Your task to perform on an android device: turn off location history Image 0: 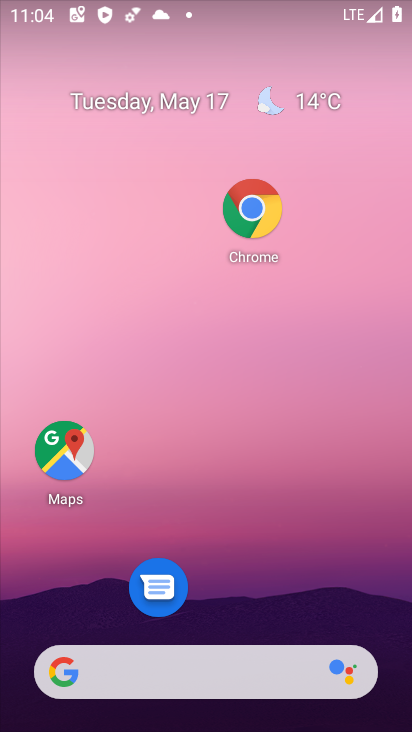
Step 0: drag from (273, 530) to (278, 73)
Your task to perform on an android device: turn off location history Image 1: 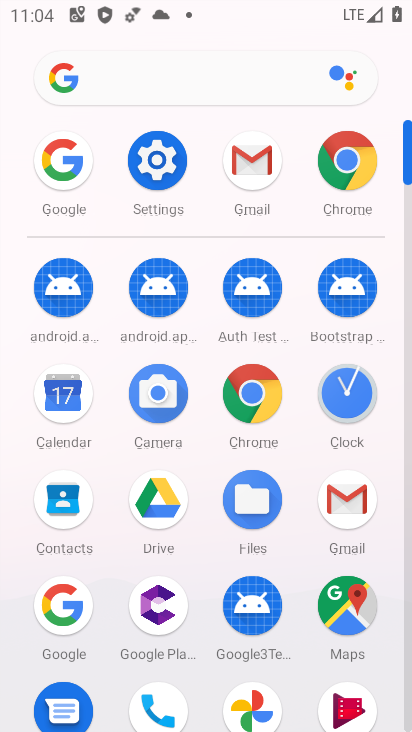
Step 1: click (167, 161)
Your task to perform on an android device: turn off location history Image 2: 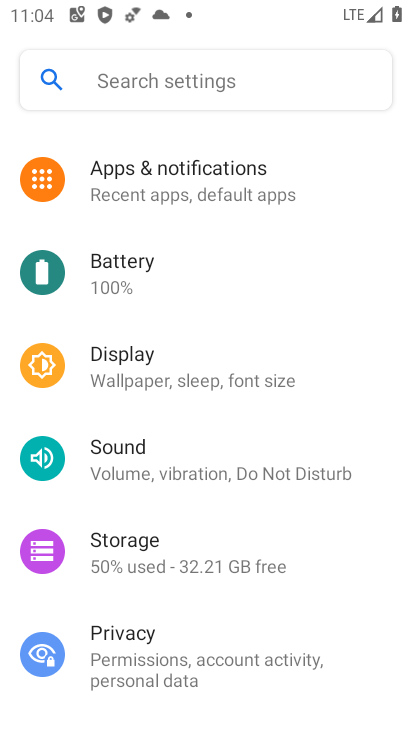
Step 2: drag from (269, 629) to (278, 403)
Your task to perform on an android device: turn off location history Image 3: 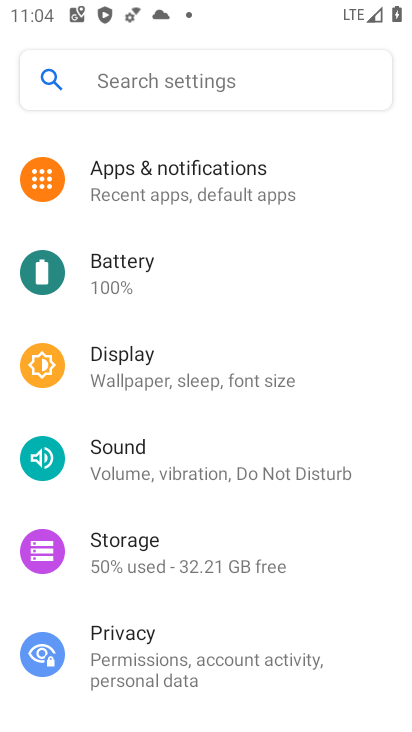
Step 3: drag from (292, 623) to (303, 350)
Your task to perform on an android device: turn off location history Image 4: 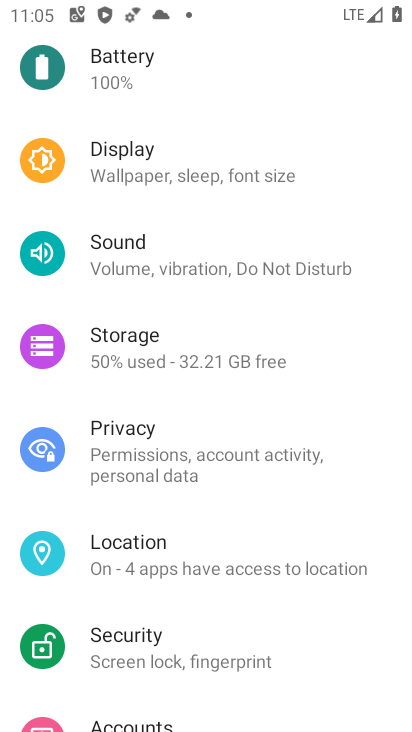
Step 4: click (228, 553)
Your task to perform on an android device: turn off location history Image 5: 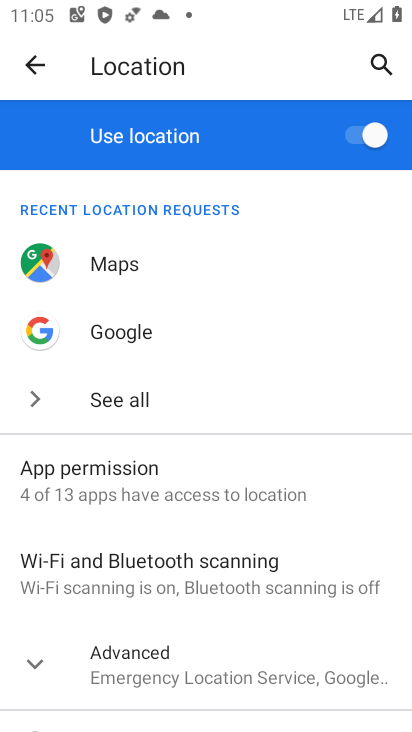
Step 5: drag from (271, 609) to (276, 360)
Your task to perform on an android device: turn off location history Image 6: 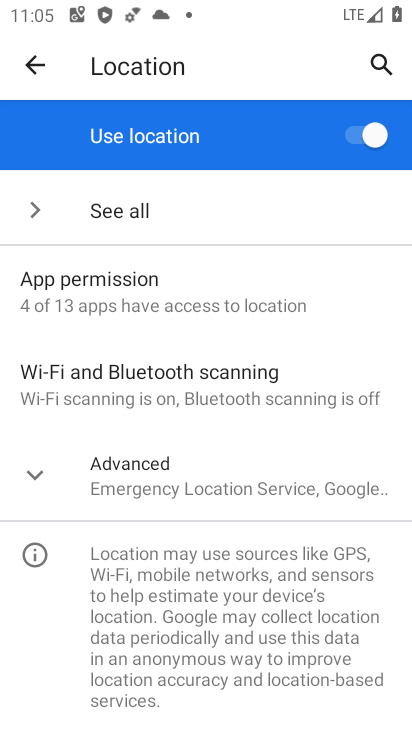
Step 6: click (213, 473)
Your task to perform on an android device: turn off location history Image 7: 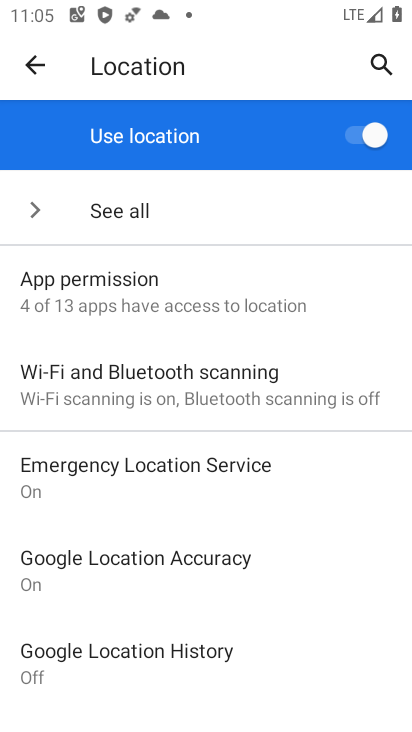
Step 7: task complete